Your task to perform on an android device: set default search engine in the chrome app Image 0: 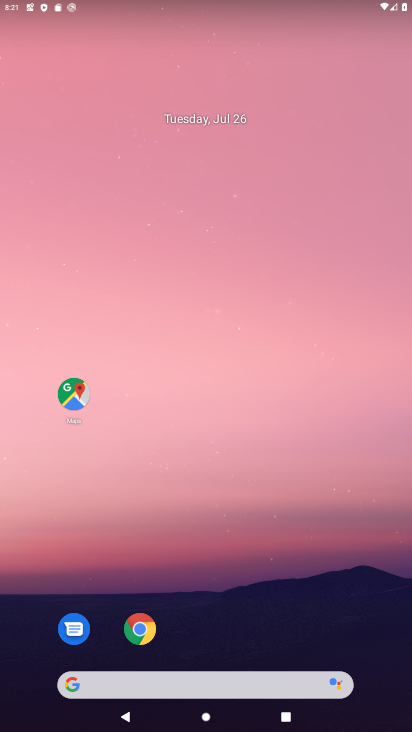
Step 0: click (137, 624)
Your task to perform on an android device: set default search engine in the chrome app Image 1: 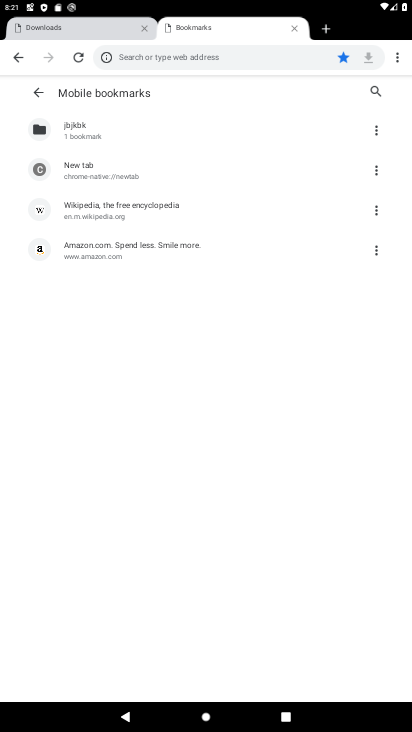
Step 1: click (396, 56)
Your task to perform on an android device: set default search engine in the chrome app Image 2: 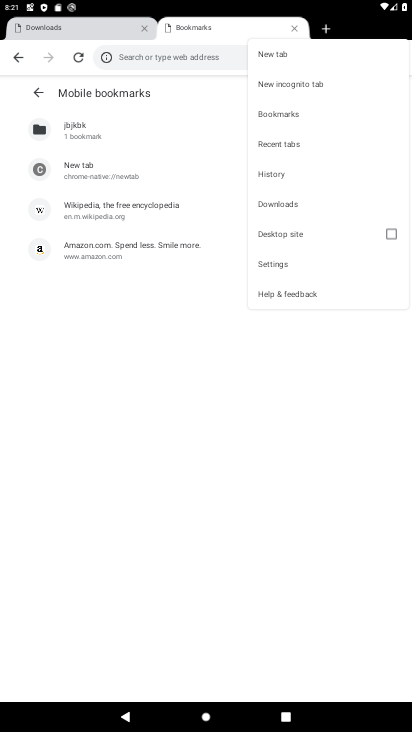
Step 2: click (296, 260)
Your task to perform on an android device: set default search engine in the chrome app Image 3: 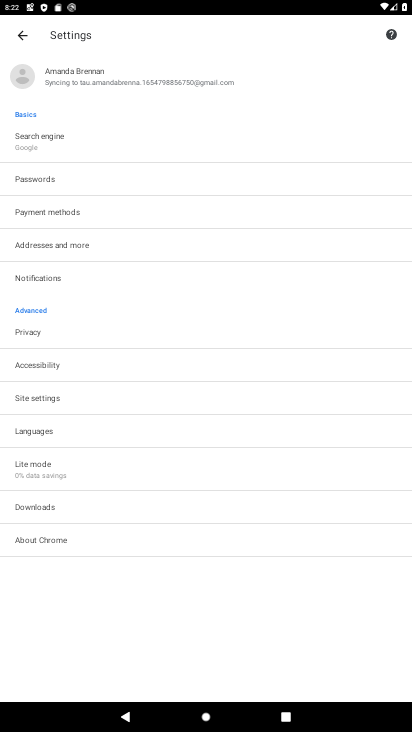
Step 3: click (59, 145)
Your task to perform on an android device: set default search engine in the chrome app Image 4: 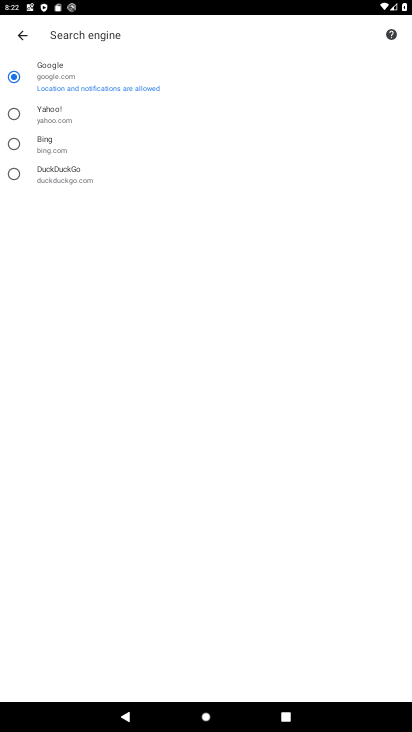
Step 4: click (14, 141)
Your task to perform on an android device: set default search engine in the chrome app Image 5: 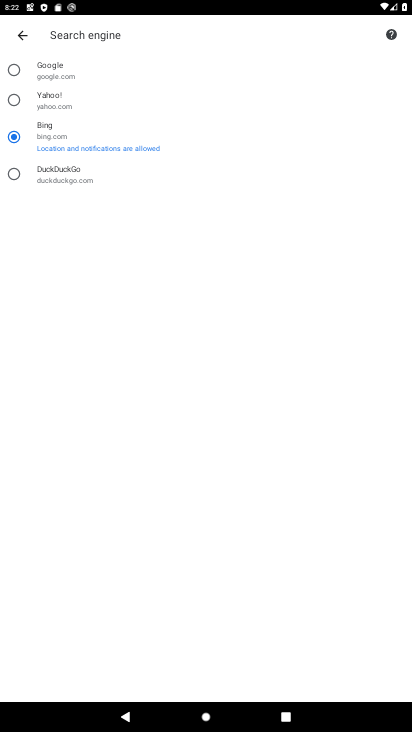
Step 5: task complete